Your task to perform on an android device: make emails show in primary in the gmail app Image 0: 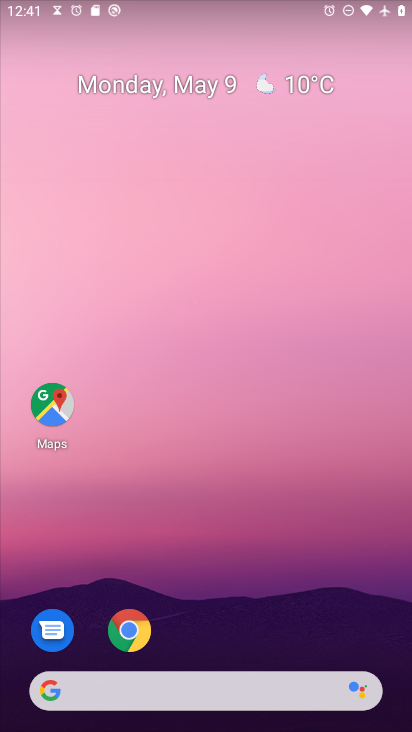
Step 0: drag from (184, 662) to (306, 160)
Your task to perform on an android device: make emails show in primary in the gmail app Image 1: 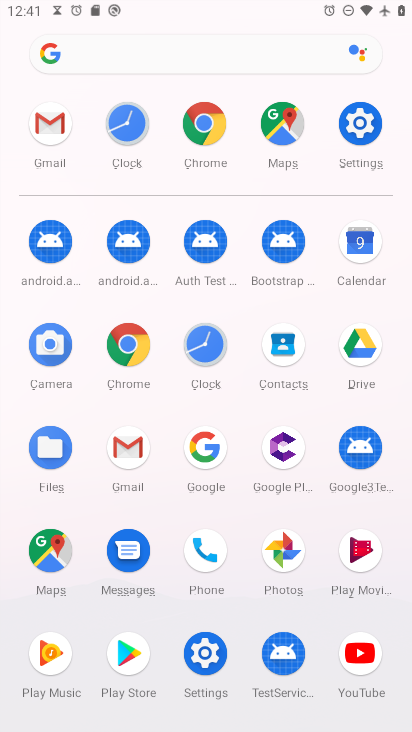
Step 1: click (59, 130)
Your task to perform on an android device: make emails show in primary in the gmail app Image 2: 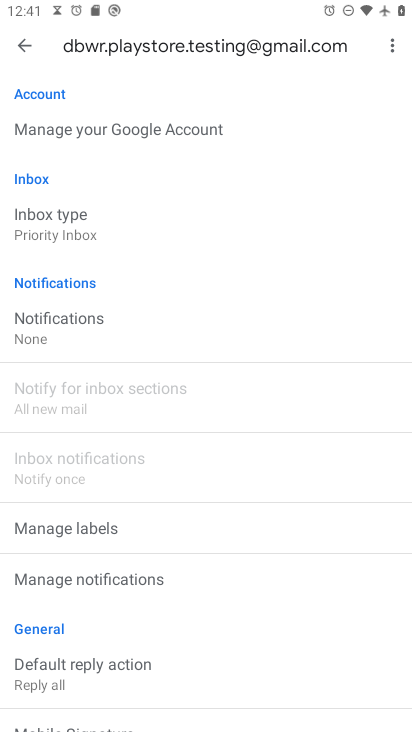
Step 2: click (23, 46)
Your task to perform on an android device: make emails show in primary in the gmail app Image 3: 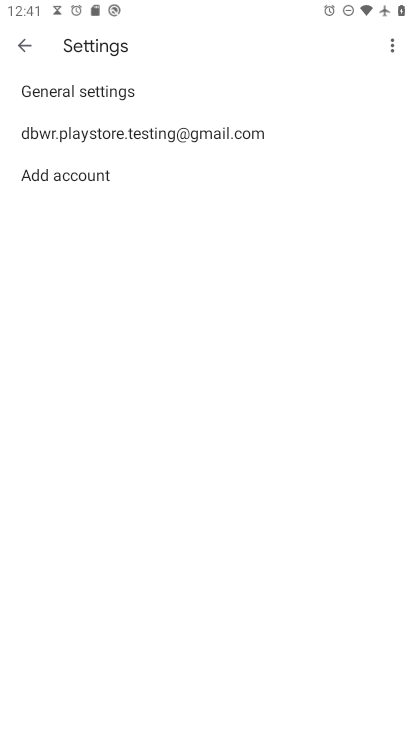
Step 3: click (56, 130)
Your task to perform on an android device: make emails show in primary in the gmail app Image 4: 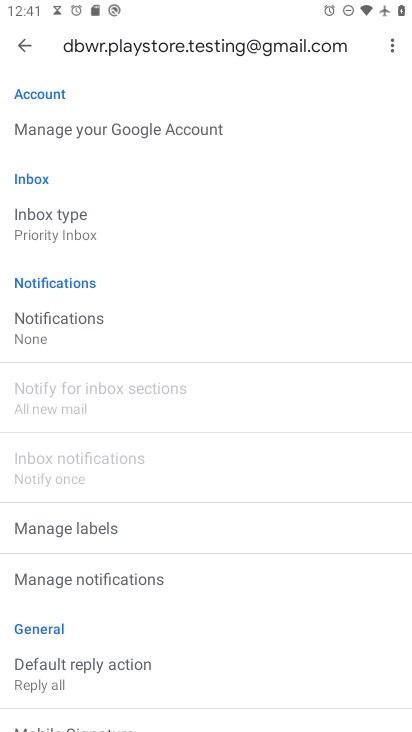
Step 4: task complete